Your task to perform on an android device: make emails show in primary in the gmail app Image 0: 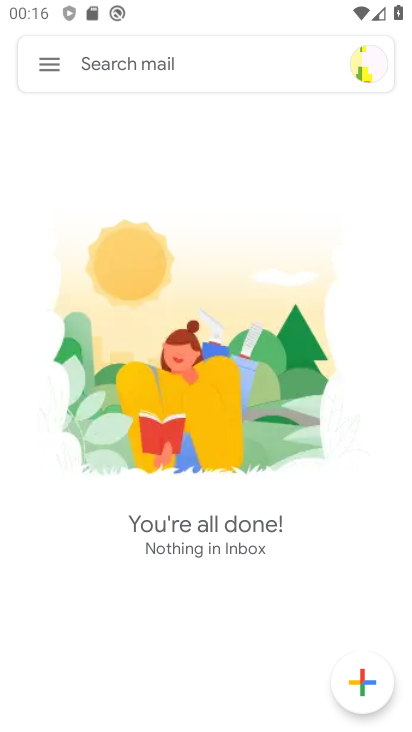
Step 0: press home button
Your task to perform on an android device: make emails show in primary in the gmail app Image 1: 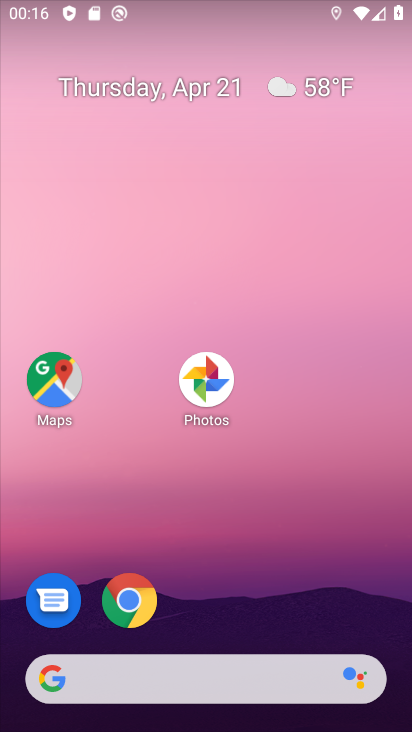
Step 1: drag from (218, 648) to (224, 17)
Your task to perform on an android device: make emails show in primary in the gmail app Image 2: 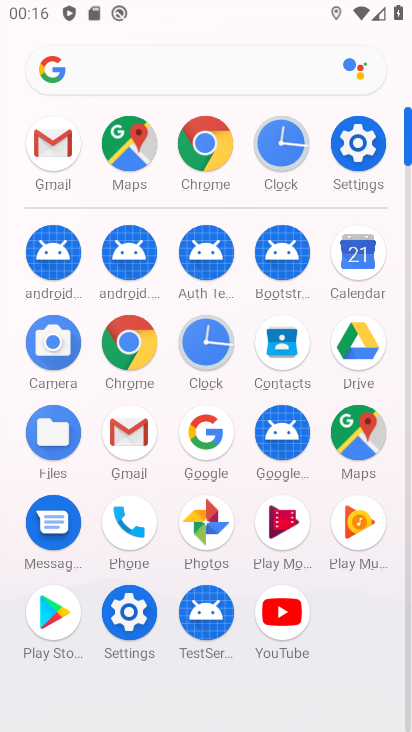
Step 2: click (122, 436)
Your task to perform on an android device: make emails show in primary in the gmail app Image 3: 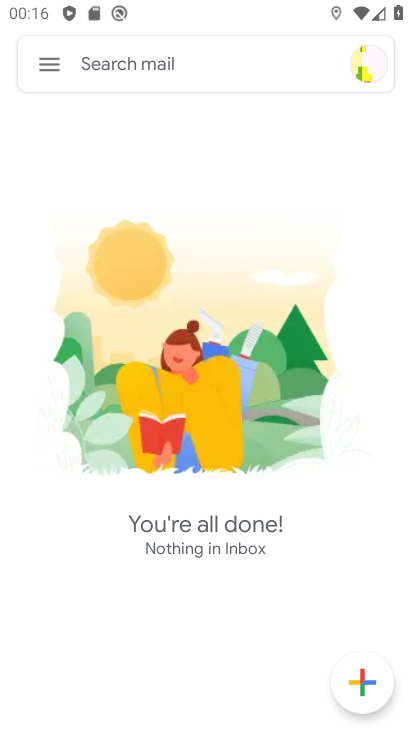
Step 3: drag from (38, 67) to (71, 421)
Your task to perform on an android device: make emails show in primary in the gmail app Image 4: 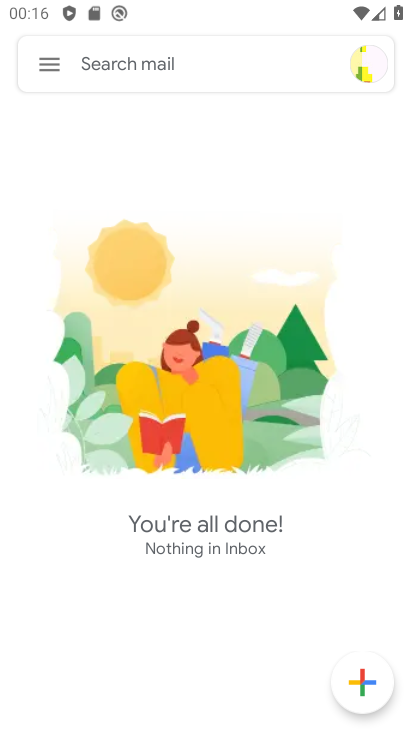
Step 4: click (46, 78)
Your task to perform on an android device: make emails show in primary in the gmail app Image 5: 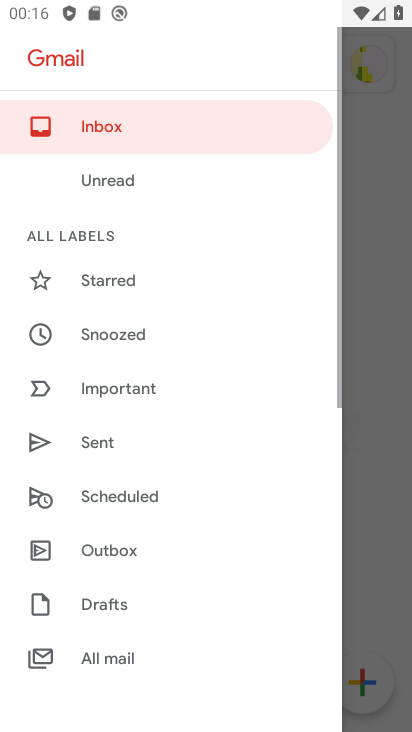
Step 5: drag from (76, 628) to (61, 122)
Your task to perform on an android device: make emails show in primary in the gmail app Image 6: 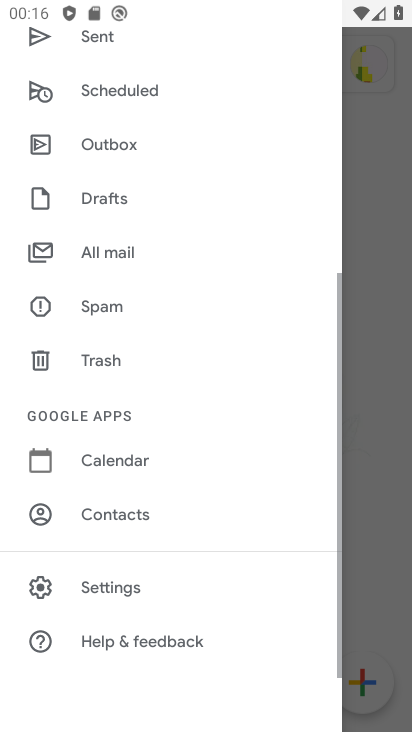
Step 6: click (110, 570)
Your task to perform on an android device: make emails show in primary in the gmail app Image 7: 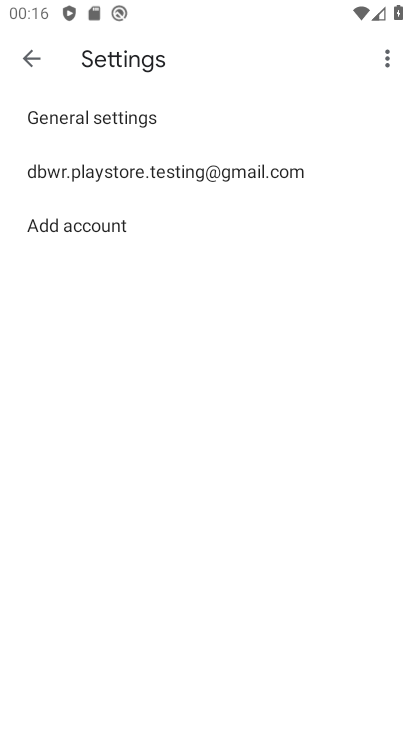
Step 7: click (154, 184)
Your task to perform on an android device: make emails show in primary in the gmail app Image 8: 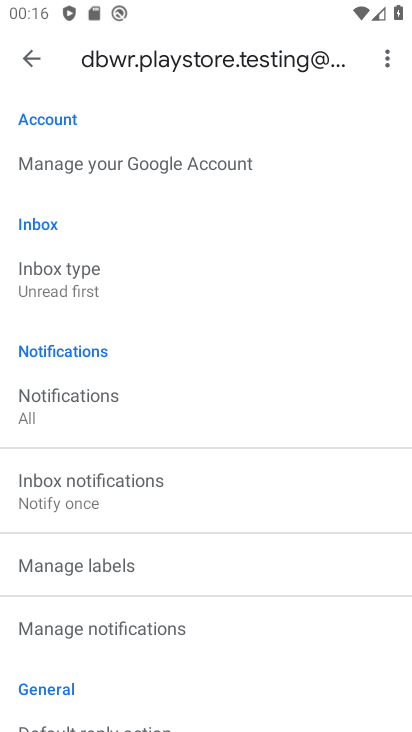
Step 8: click (59, 282)
Your task to perform on an android device: make emails show in primary in the gmail app Image 9: 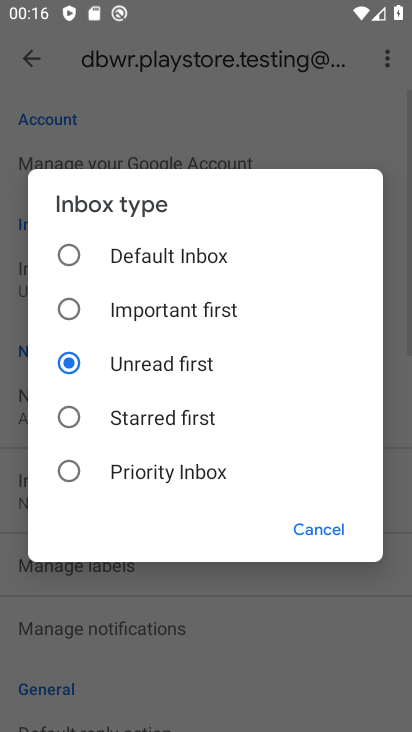
Step 9: click (131, 477)
Your task to perform on an android device: make emails show in primary in the gmail app Image 10: 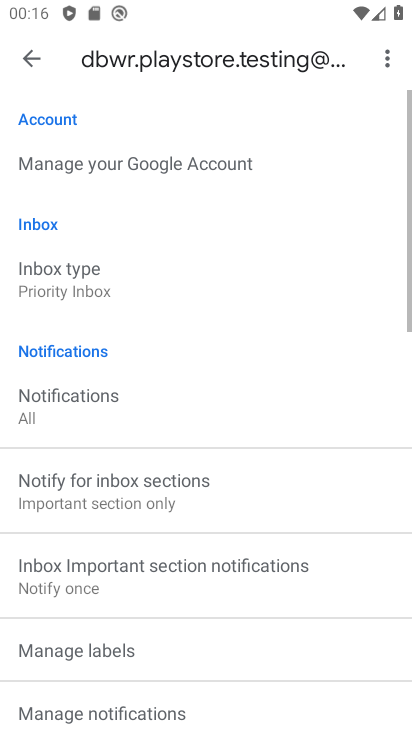
Step 10: click (45, 273)
Your task to perform on an android device: make emails show in primary in the gmail app Image 11: 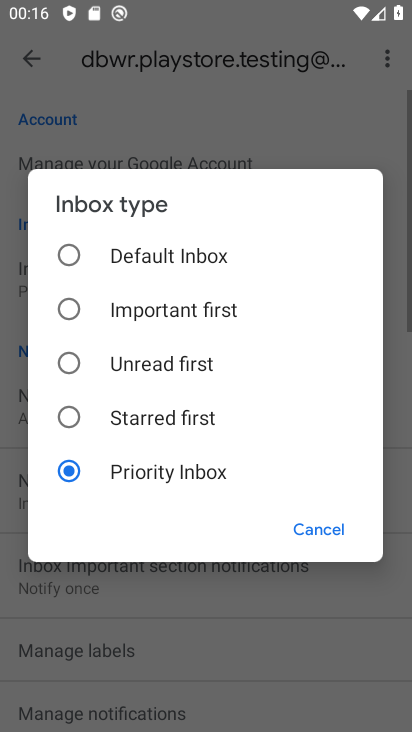
Step 11: click (47, 242)
Your task to perform on an android device: make emails show in primary in the gmail app Image 12: 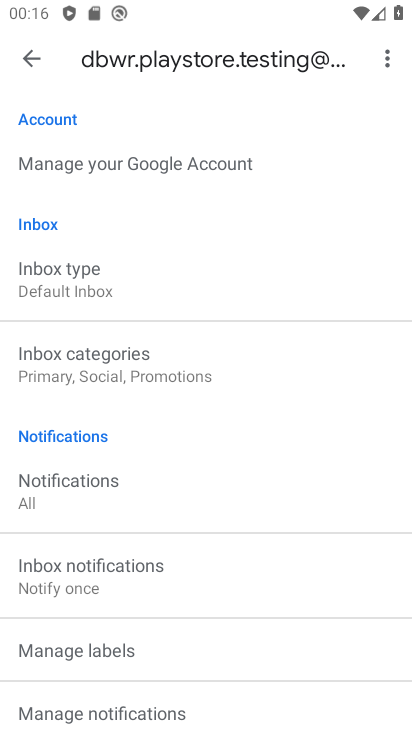
Step 12: click (39, 58)
Your task to perform on an android device: make emails show in primary in the gmail app Image 13: 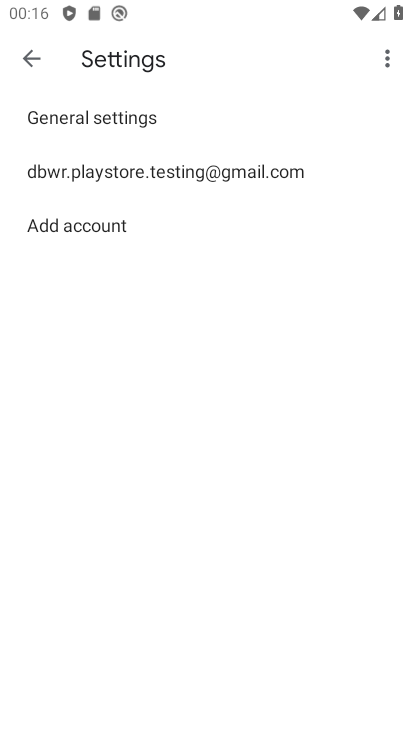
Step 13: click (35, 67)
Your task to perform on an android device: make emails show in primary in the gmail app Image 14: 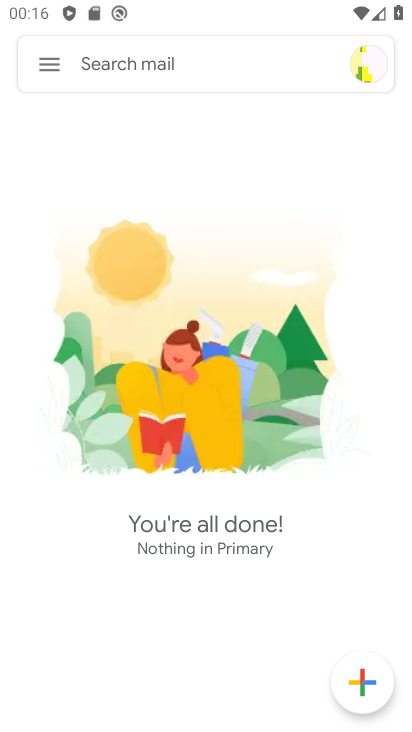
Step 14: task complete